Your task to perform on an android device: toggle improve location accuracy Image 0: 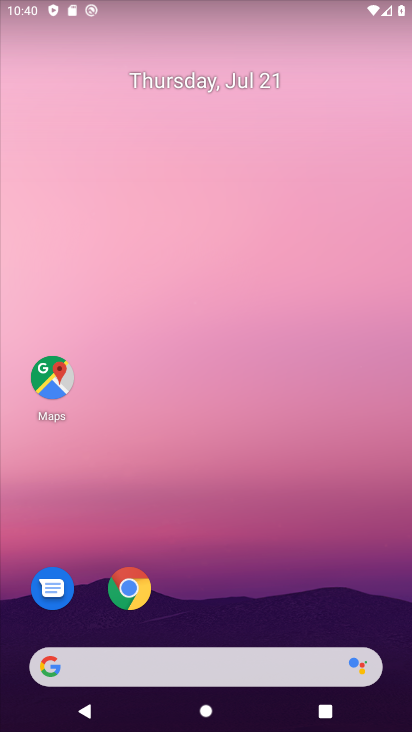
Step 0: drag from (301, 574) to (367, 0)
Your task to perform on an android device: toggle improve location accuracy Image 1: 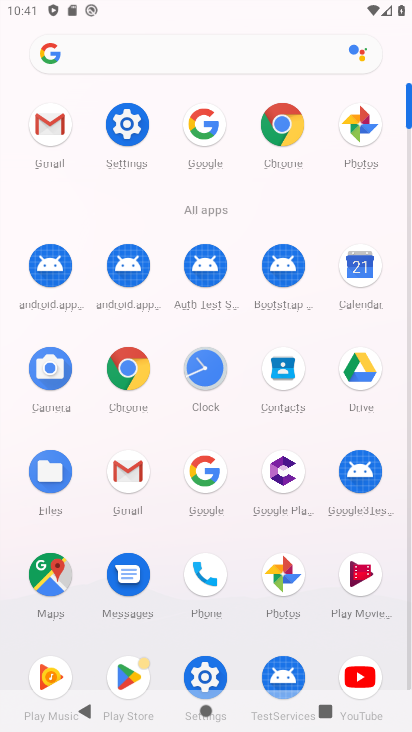
Step 1: click (149, 141)
Your task to perform on an android device: toggle improve location accuracy Image 2: 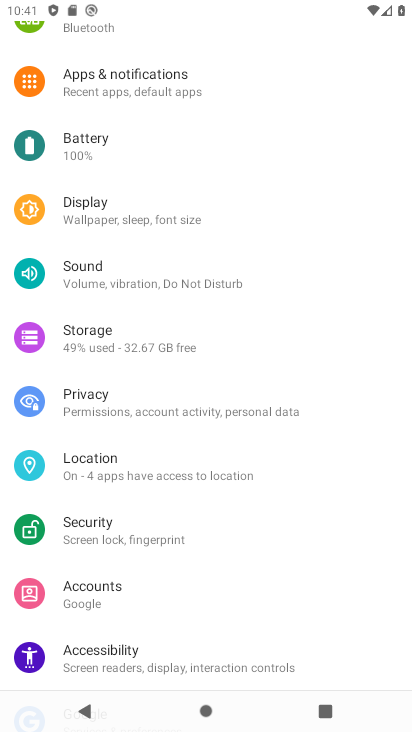
Step 2: click (110, 470)
Your task to perform on an android device: toggle improve location accuracy Image 3: 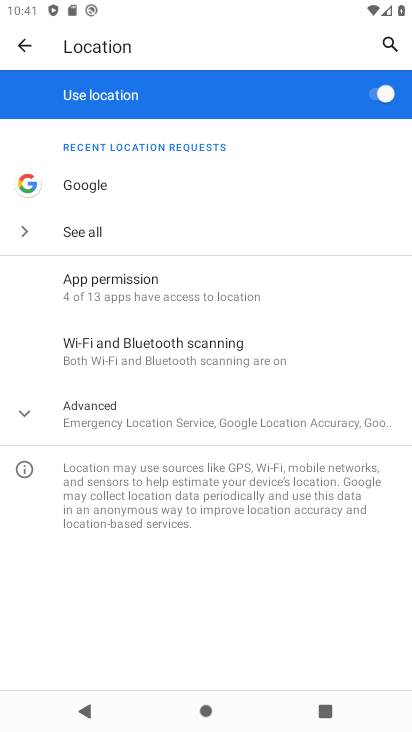
Step 3: click (180, 437)
Your task to perform on an android device: toggle improve location accuracy Image 4: 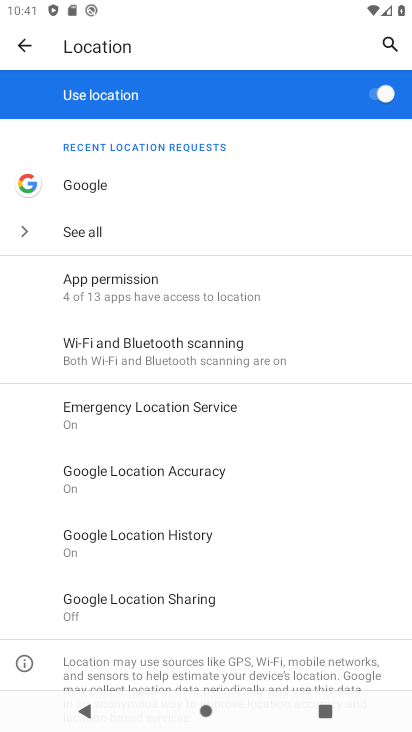
Step 4: click (155, 481)
Your task to perform on an android device: toggle improve location accuracy Image 5: 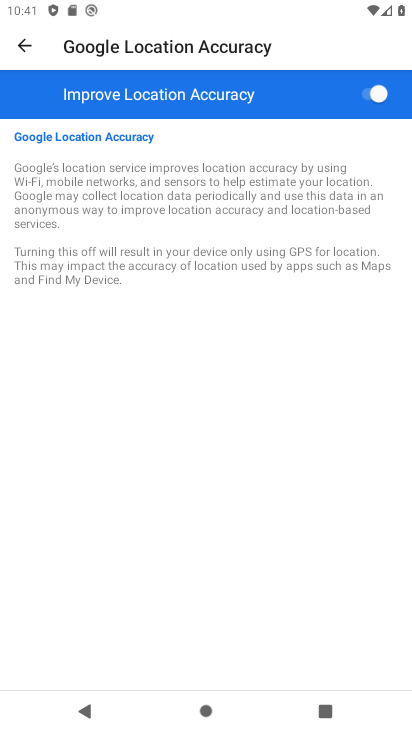
Step 5: click (364, 114)
Your task to perform on an android device: toggle improve location accuracy Image 6: 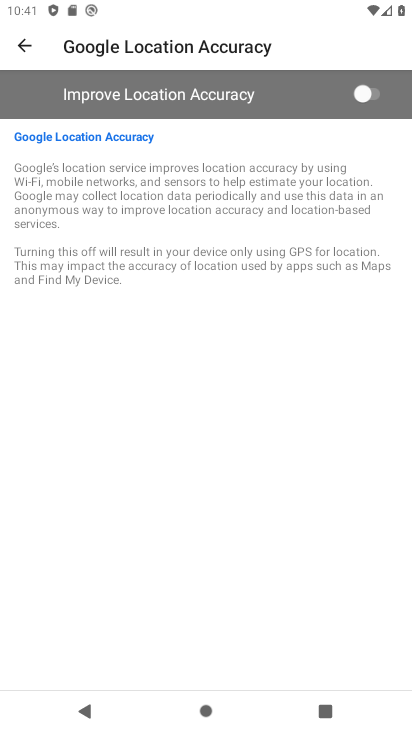
Step 6: task complete